Your task to perform on an android device: Search for pizza restaurants on Maps Image 0: 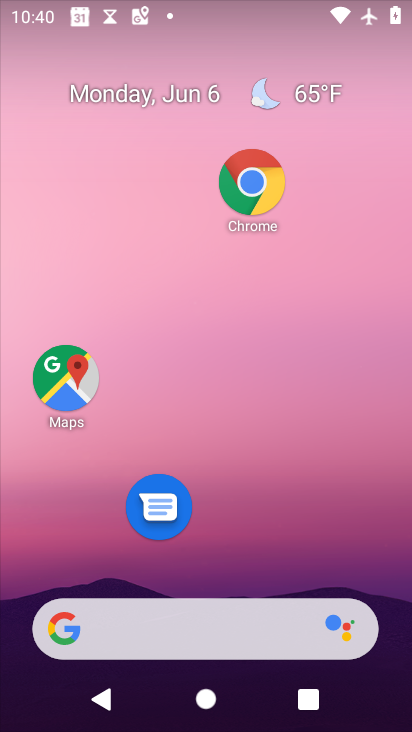
Step 0: click (63, 357)
Your task to perform on an android device: Search for pizza restaurants on Maps Image 1: 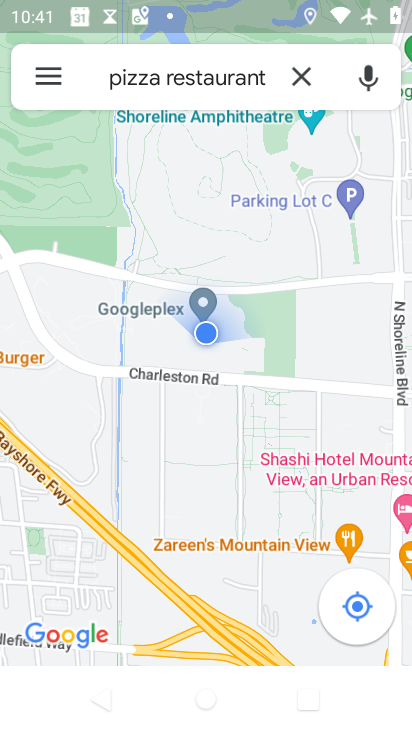
Step 1: task complete